Your task to perform on an android device: turn on location history Image 0: 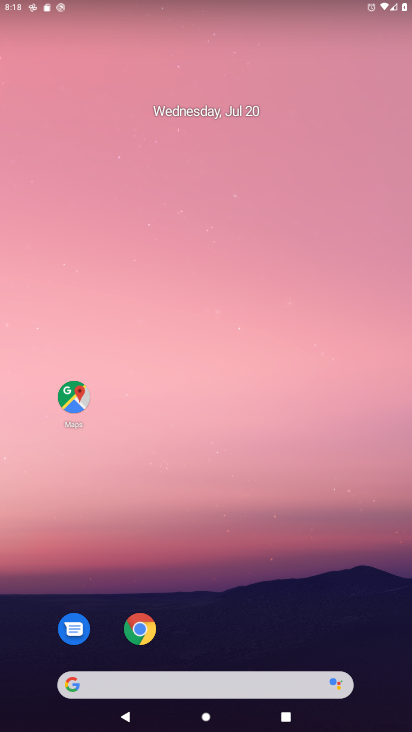
Step 0: drag from (256, 614) to (228, 232)
Your task to perform on an android device: turn on location history Image 1: 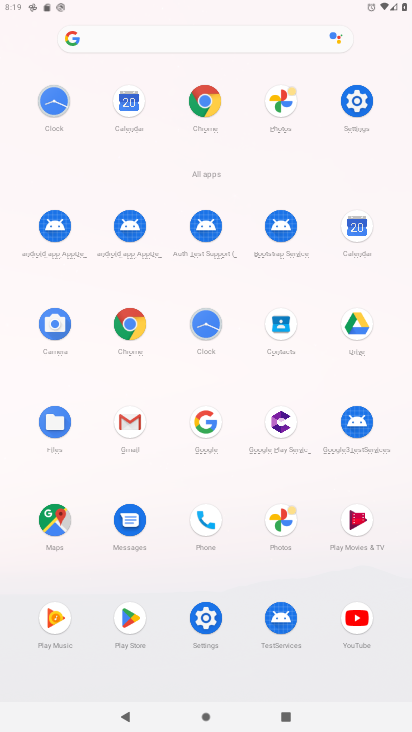
Step 1: click (357, 107)
Your task to perform on an android device: turn on location history Image 2: 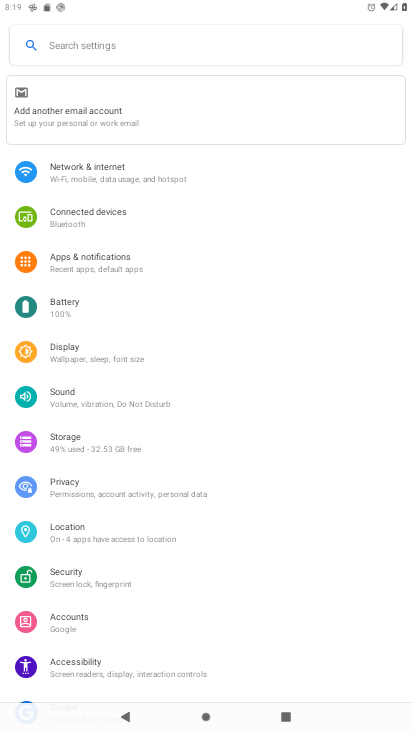
Step 2: click (75, 532)
Your task to perform on an android device: turn on location history Image 3: 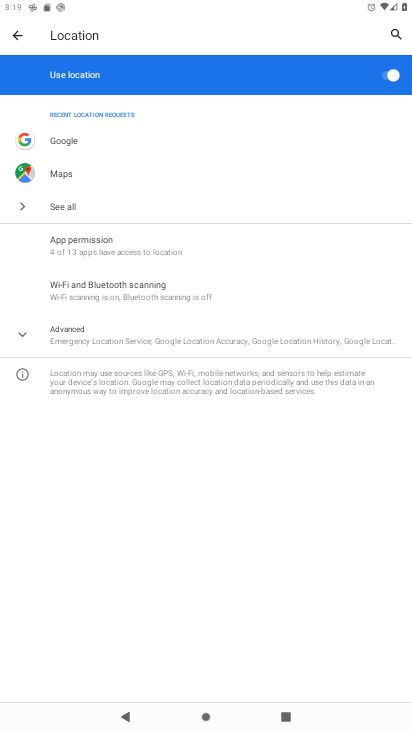
Step 3: click (131, 330)
Your task to perform on an android device: turn on location history Image 4: 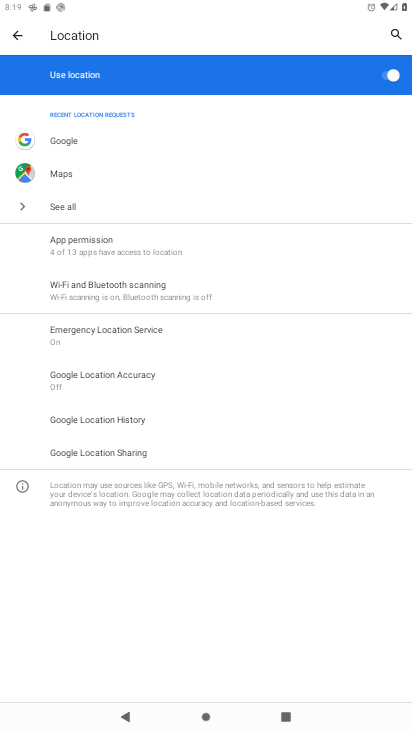
Step 4: click (134, 425)
Your task to perform on an android device: turn on location history Image 5: 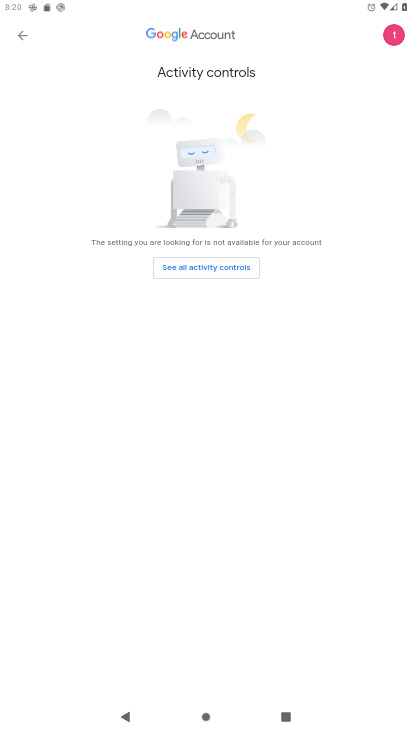
Step 5: task complete